Your task to perform on an android device: delete a single message in the gmail app Image 0: 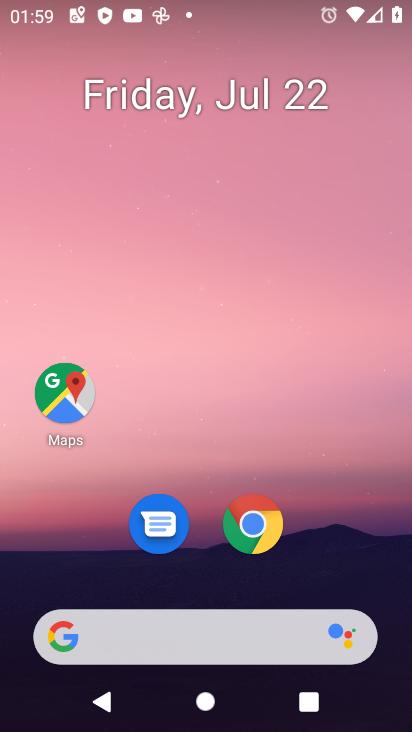
Step 0: drag from (221, 635) to (262, 138)
Your task to perform on an android device: delete a single message in the gmail app Image 1: 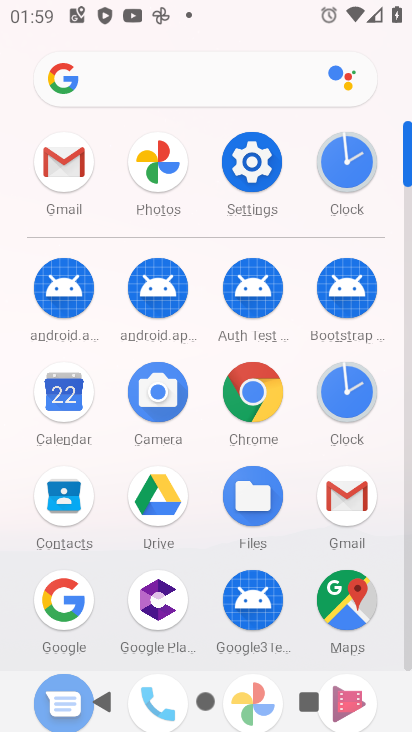
Step 1: click (43, 166)
Your task to perform on an android device: delete a single message in the gmail app Image 2: 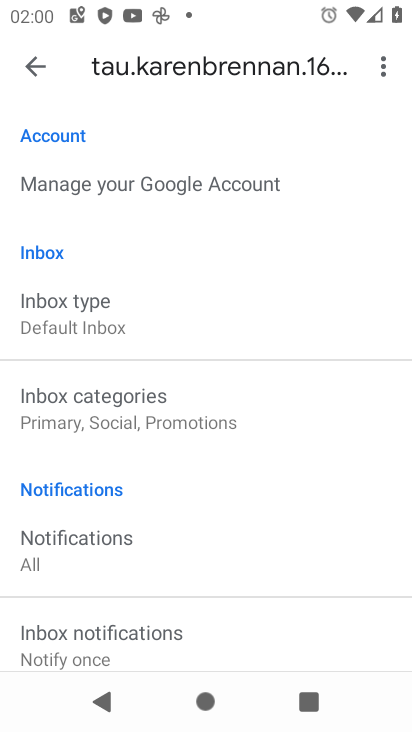
Step 2: click (32, 66)
Your task to perform on an android device: delete a single message in the gmail app Image 3: 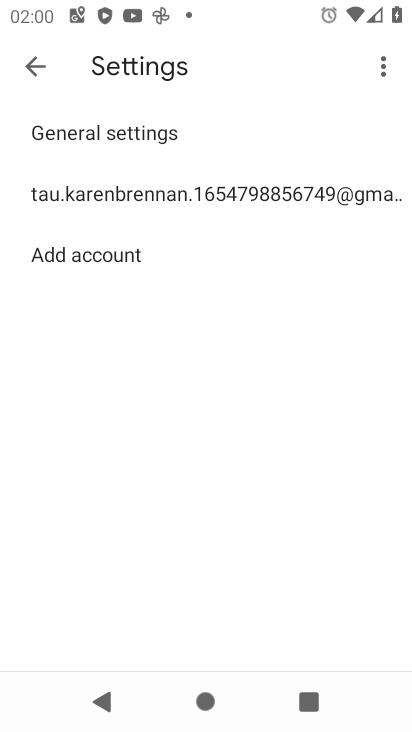
Step 3: click (32, 66)
Your task to perform on an android device: delete a single message in the gmail app Image 4: 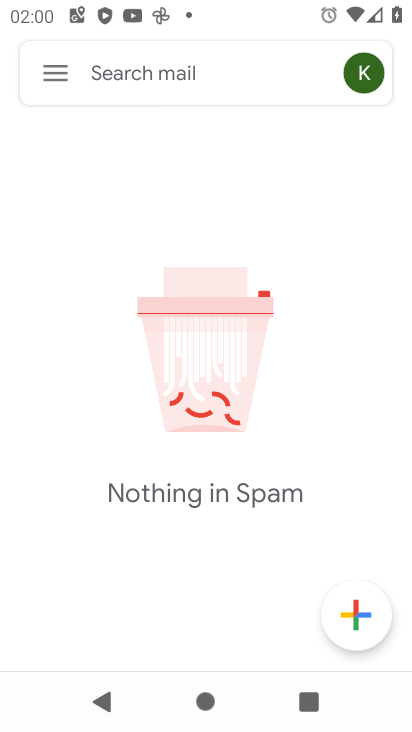
Step 4: click (58, 66)
Your task to perform on an android device: delete a single message in the gmail app Image 5: 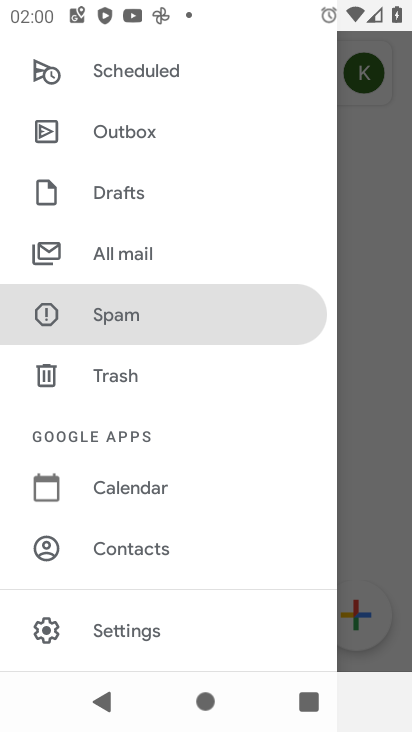
Step 5: click (130, 259)
Your task to perform on an android device: delete a single message in the gmail app Image 6: 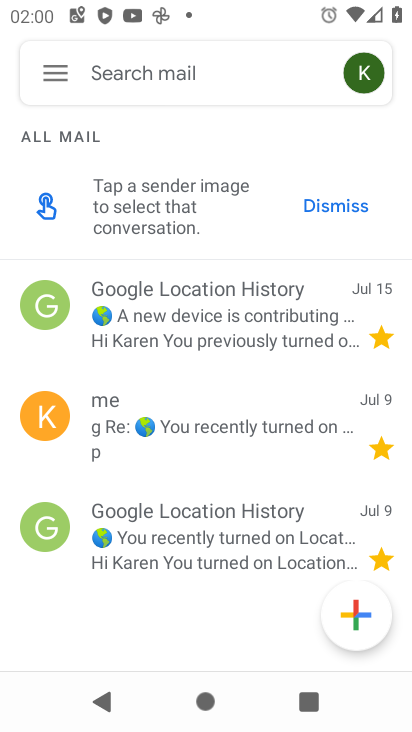
Step 6: click (53, 315)
Your task to perform on an android device: delete a single message in the gmail app Image 7: 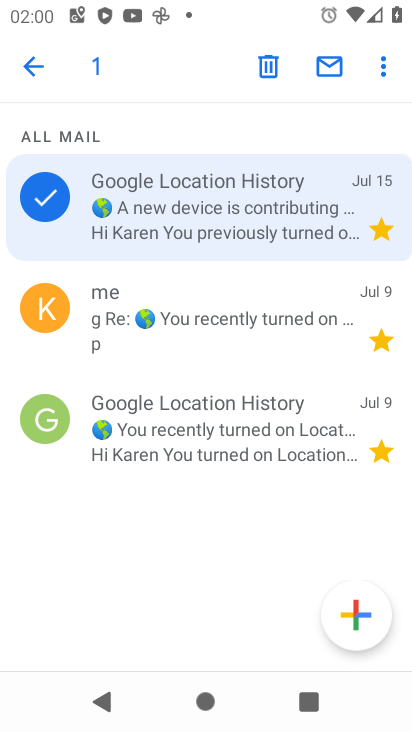
Step 7: click (273, 66)
Your task to perform on an android device: delete a single message in the gmail app Image 8: 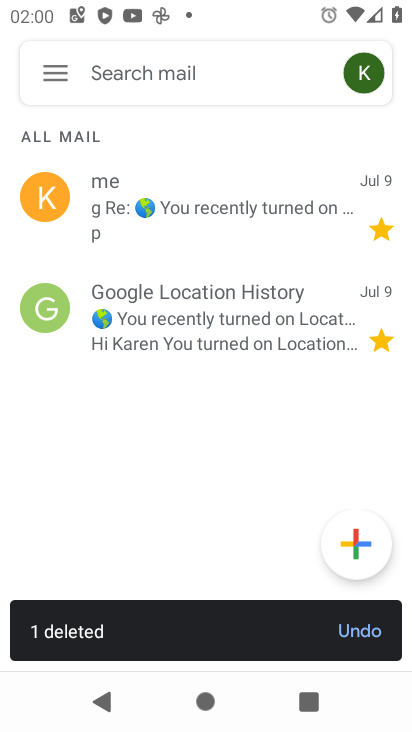
Step 8: task complete